Your task to perform on an android device: stop showing notifications on the lock screen Image 0: 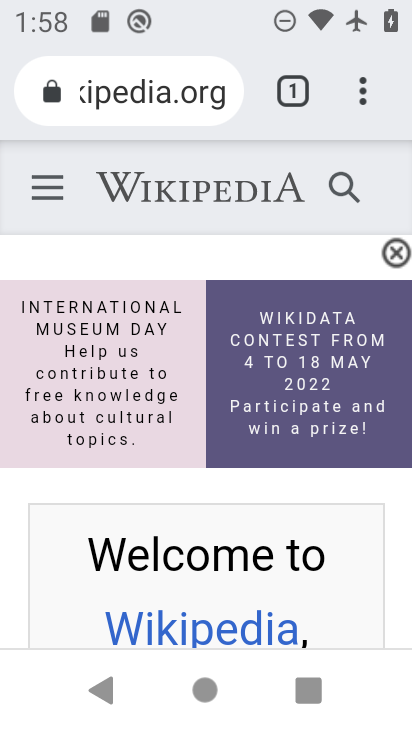
Step 0: press home button
Your task to perform on an android device: stop showing notifications on the lock screen Image 1: 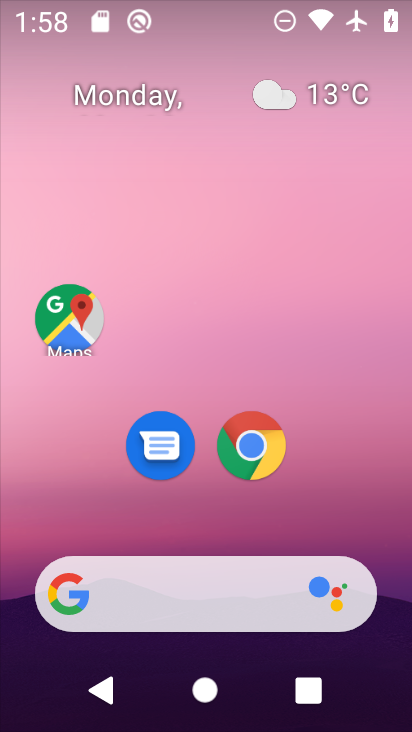
Step 1: drag from (401, 618) to (304, 185)
Your task to perform on an android device: stop showing notifications on the lock screen Image 2: 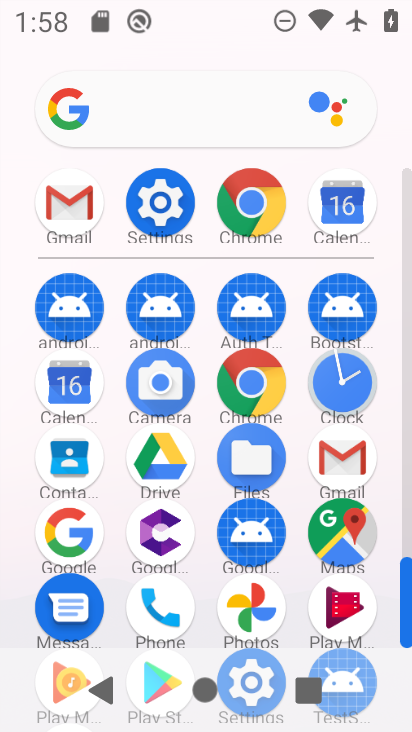
Step 2: click (153, 199)
Your task to perform on an android device: stop showing notifications on the lock screen Image 3: 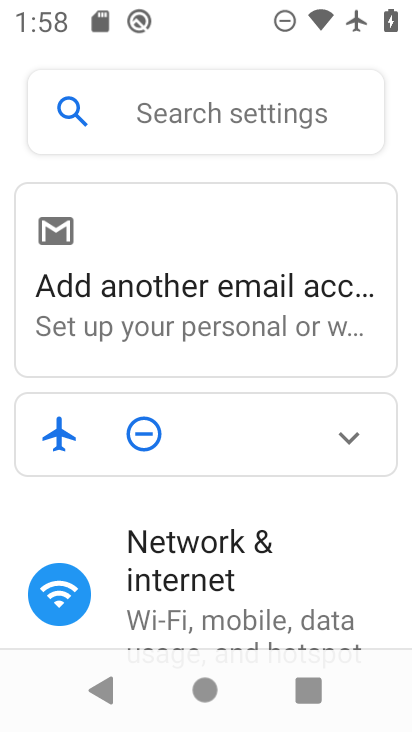
Step 3: drag from (210, 535) to (279, 117)
Your task to perform on an android device: stop showing notifications on the lock screen Image 4: 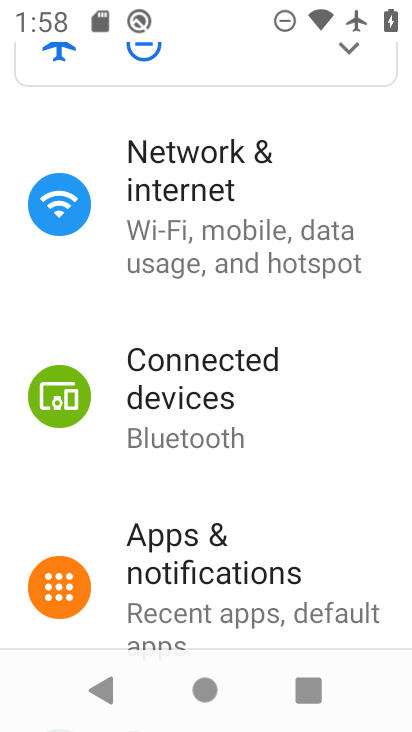
Step 4: click (229, 570)
Your task to perform on an android device: stop showing notifications on the lock screen Image 5: 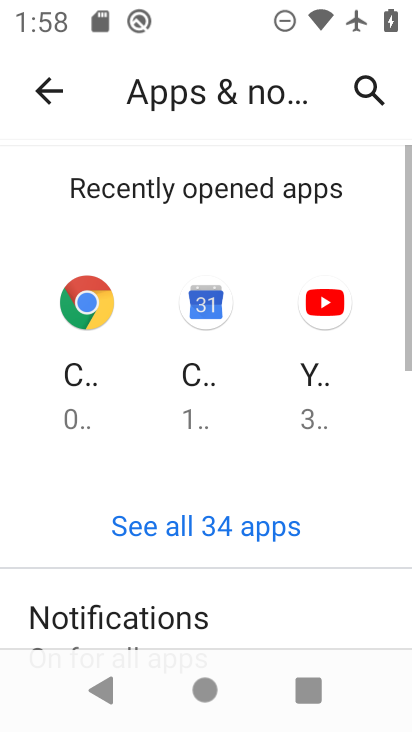
Step 5: click (155, 611)
Your task to perform on an android device: stop showing notifications on the lock screen Image 6: 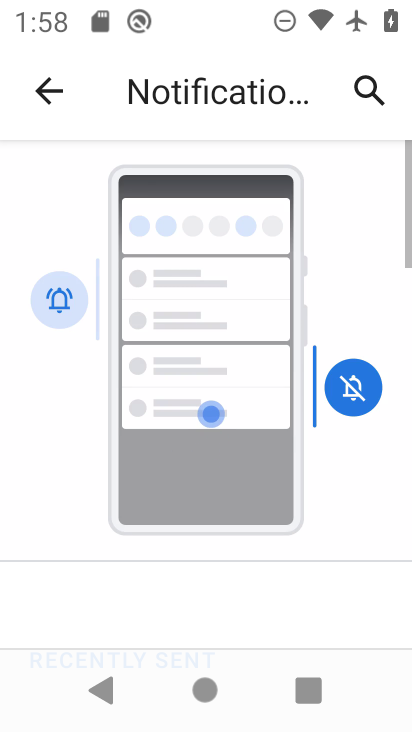
Step 6: drag from (153, 588) to (230, 93)
Your task to perform on an android device: stop showing notifications on the lock screen Image 7: 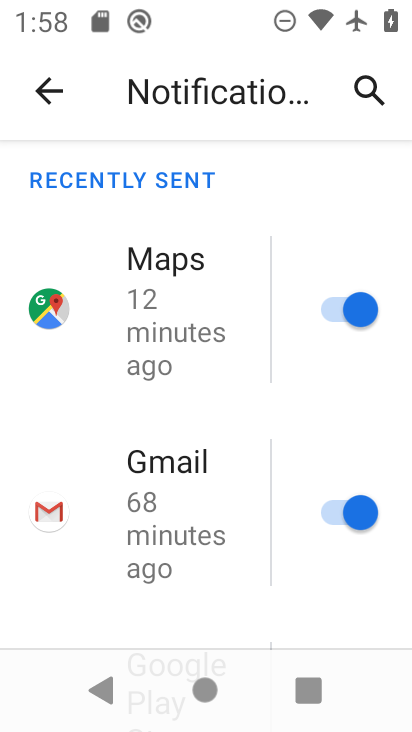
Step 7: drag from (84, 586) to (197, 72)
Your task to perform on an android device: stop showing notifications on the lock screen Image 8: 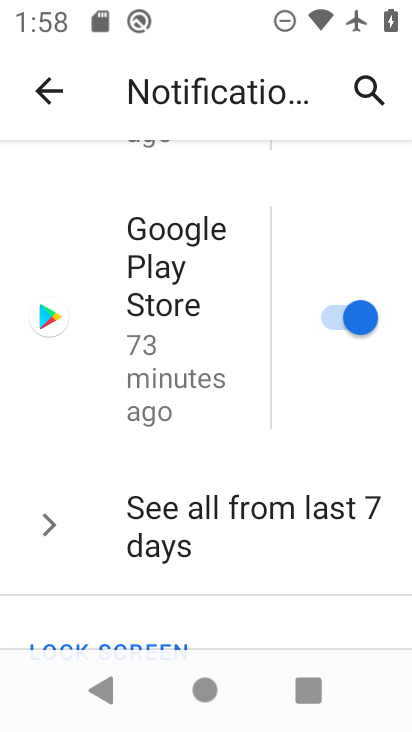
Step 8: drag from (142, 522) to (194, 190)
Your task to perform on an android device: stop showing notifications on the lock screen Image 9: 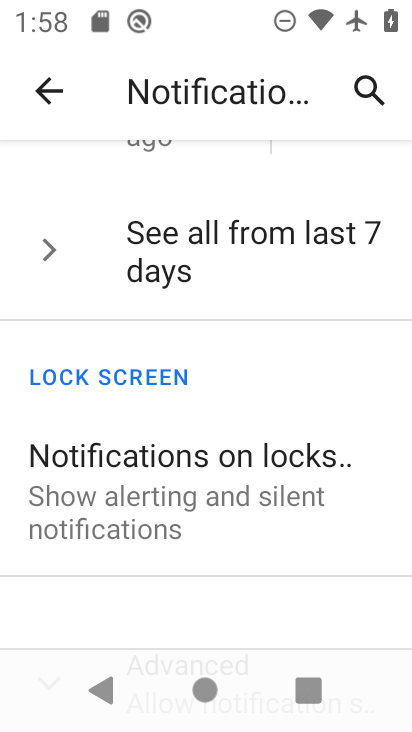
Step 9: click (219, 488)
Your task to perform on an android device: stop showing notifications on the lock screen Image 10: 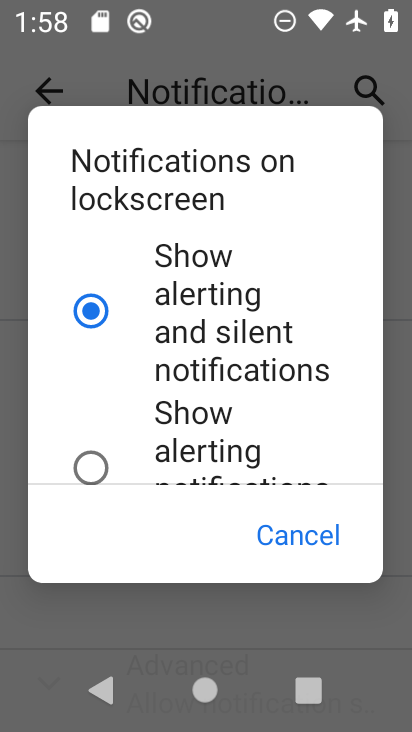
Step 10: drag from (167, 446) to (203, 149)
Your task to perform on an android device: stop showing notifications on the lock screen Image 11: 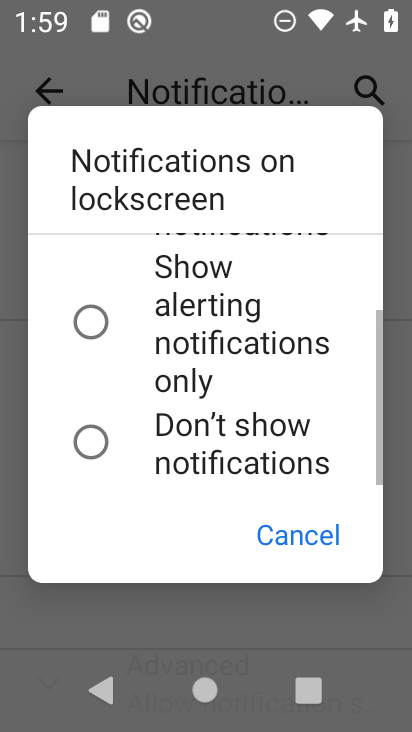
Step 11: click (91, 446)
Your task to perform on an android device: stop showing notifications on the lock screen Image 12: 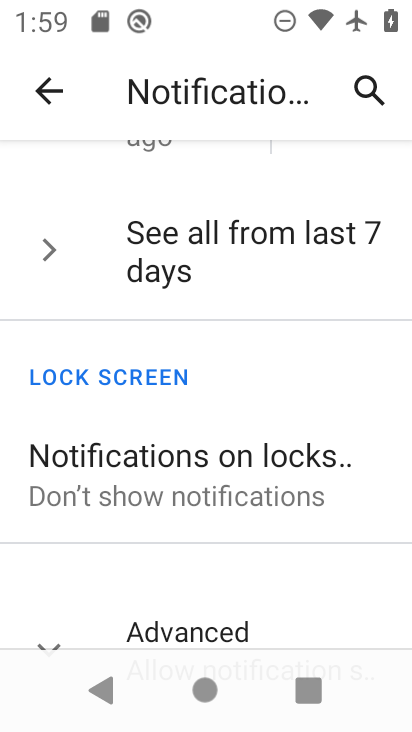
Step 12: task complete